Your task to perform on an android device: Go to network settings Image 0: 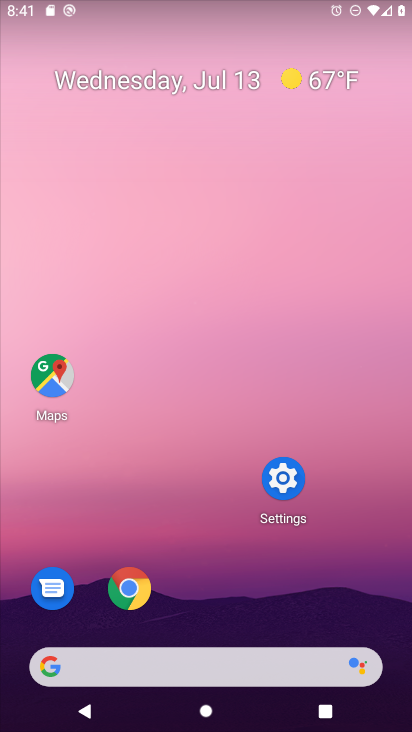
Step 0: click (299, 487)
Your task to perform on an android device: Go to network settings Image 1: 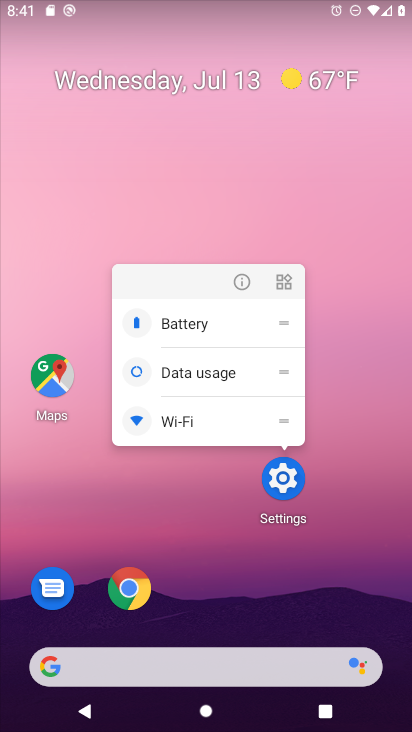
Step 1: click (281, 491)
Your task to perform on an android device: Go to network settings Image 2: 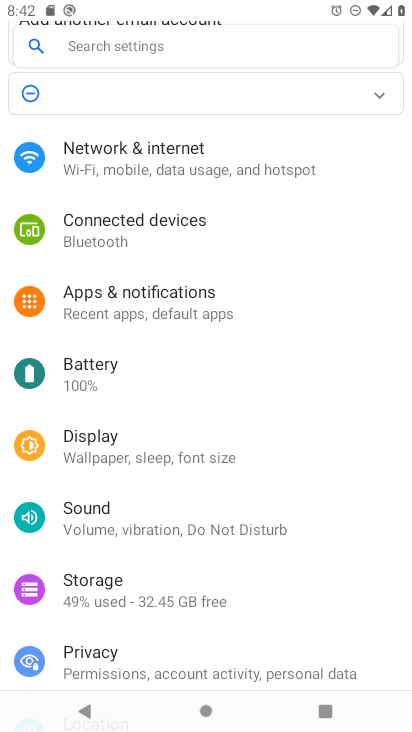
Step 2: click (131, 169)
Your task to perform on an android device: Go to network settings Image 3: 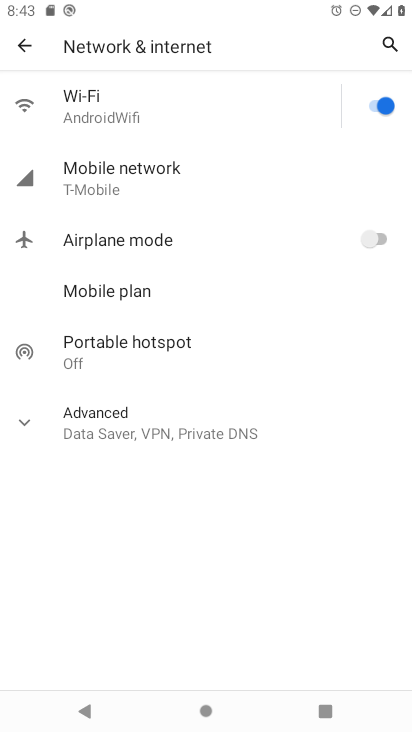
Step 3: task complete